Your task to perform on an android device: Is it going to rain this weekend? Image 0: 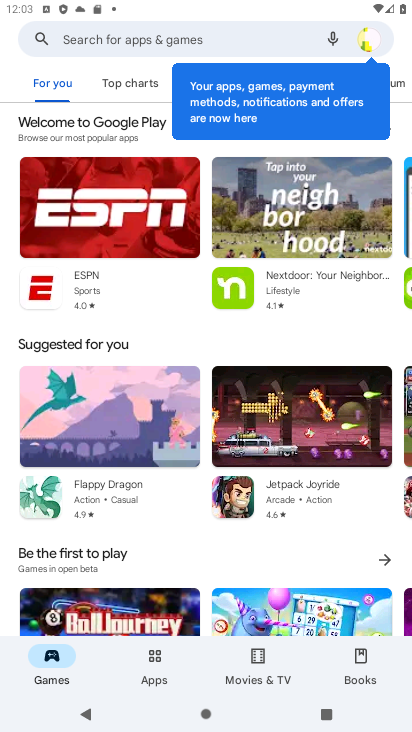
Step 0: press home button
Your task to perform on an android device: Is it going to rain this weekend? Image 1: 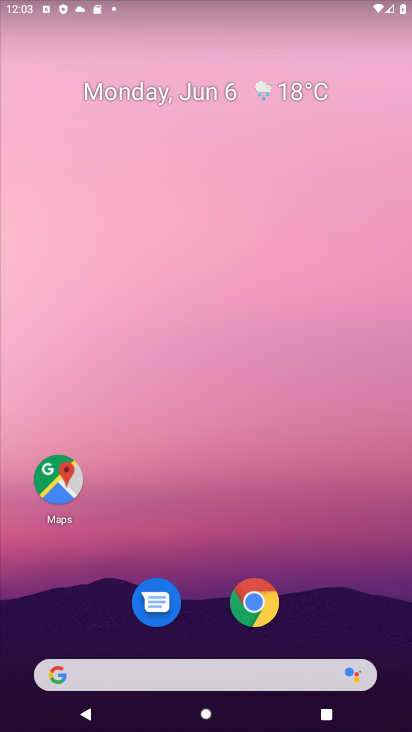
Step 1: click (206, 680)
Your task to perform on an android device: Is it going to rain this weekend? Image 2: 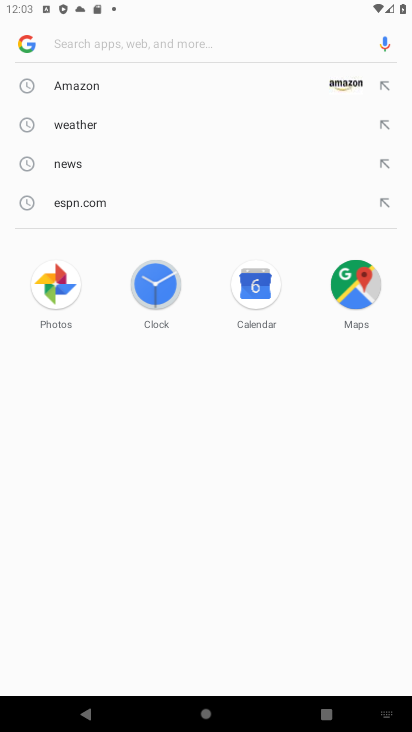
Step 2: press home button
Your task to perform on an android device: Is it going to rain this weekend? Image 3: 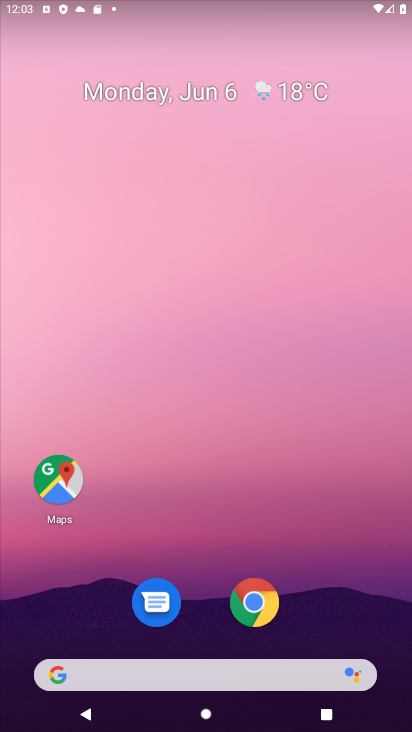
Step 3: drag from (375, 609) to (249, 142)
Your task to perform on an android device: Is it going to rain this weekend? Image 4: 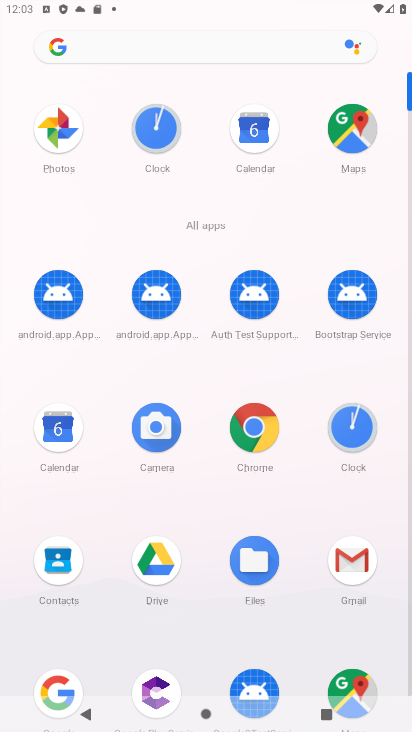
Step 4: click (237, 41)
Your task to perform on an android device: Is it going to rain this weekend? Image 5: 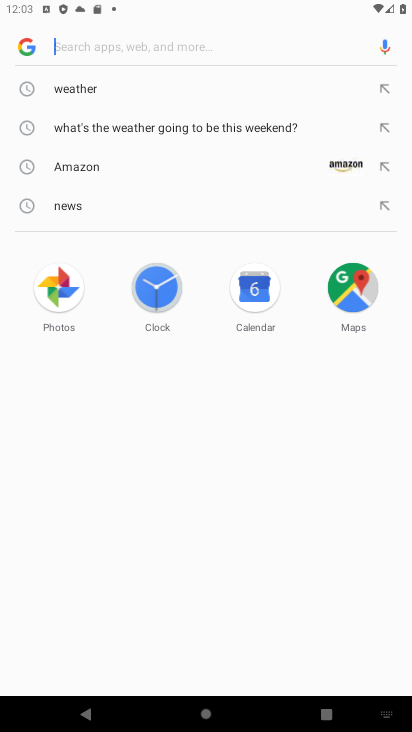
Step 5: click (167, 88)
Your task to perform on an android device: Is it going to rain this weekend? Image 6: 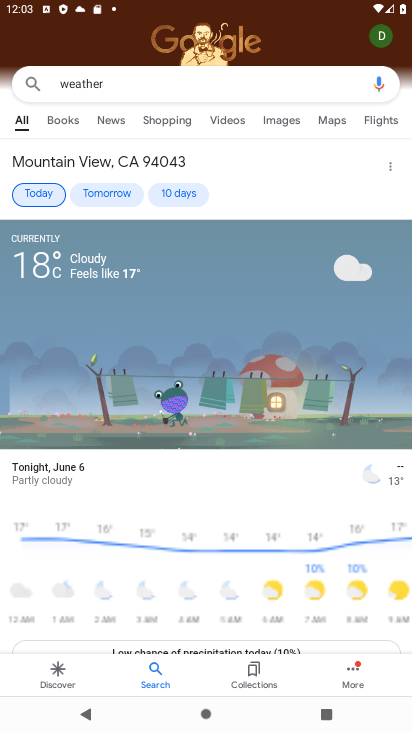
Step 6: task complete